Your task to perform on an android device: Show me the alarms in the clock app Image 0: 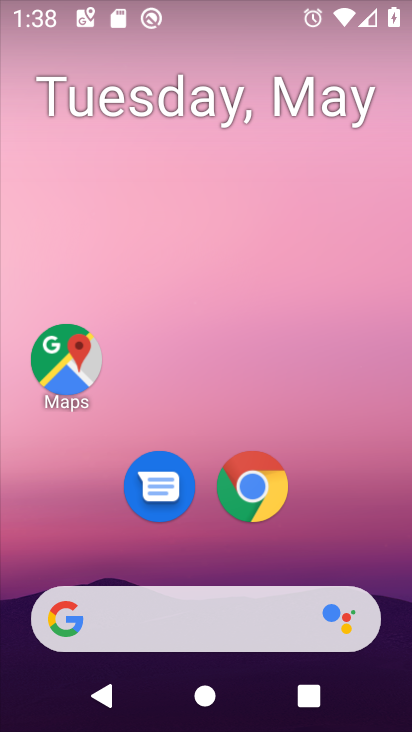
Step 0: drag from (29, 594) to (223, 271)
Your task to perform on an android device: Show me the alarms in the clock app Image 1: 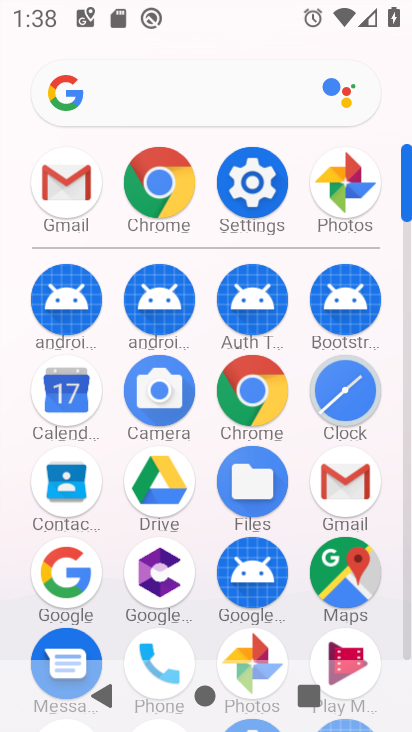
Step 1: click (336, 385)
Your task to perform on an android device: Show me the alarms in the clock app Image 2: 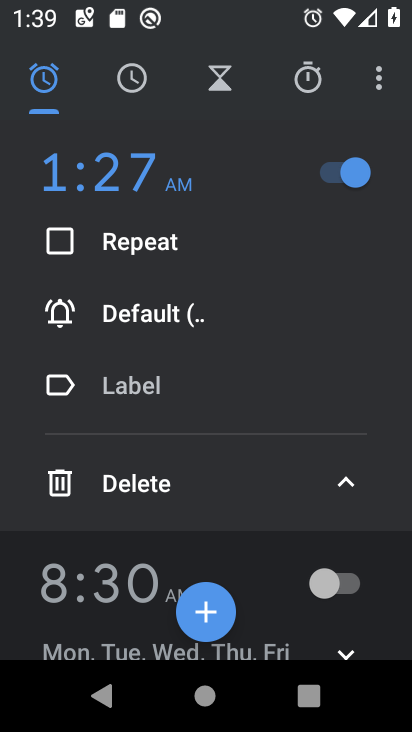
Step 2: click (116, 699)
Your task to perform on an android device: Show me the alarms in the clock app Image 3: 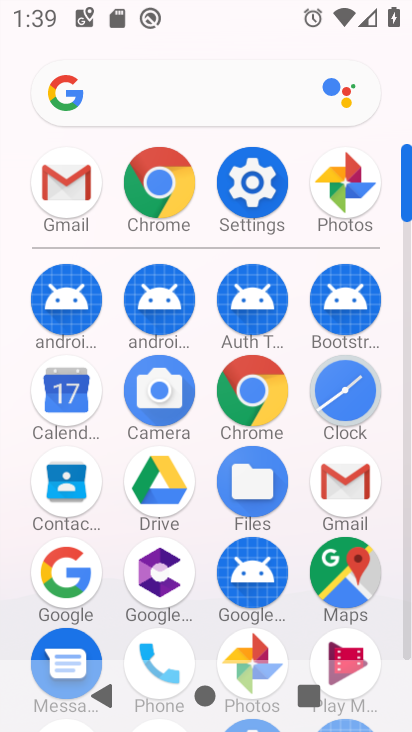
Step 3: click (330, 410)
Your task to perform on an android device: Show me the alarms in the clock app Image 4: 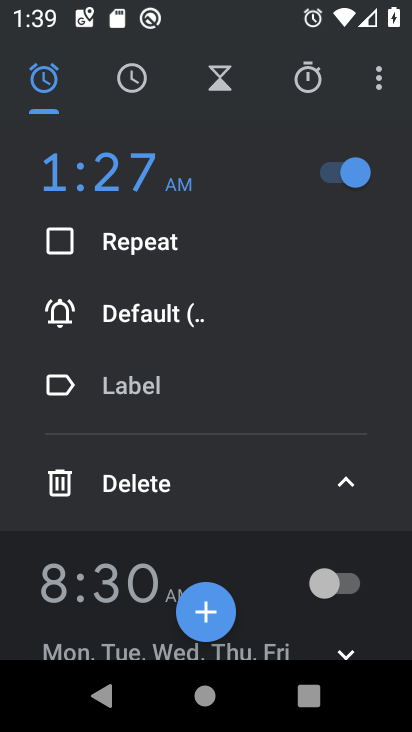
Step 4: task complete